Your task to perform on an android device: When is my next appointment? Image 0: 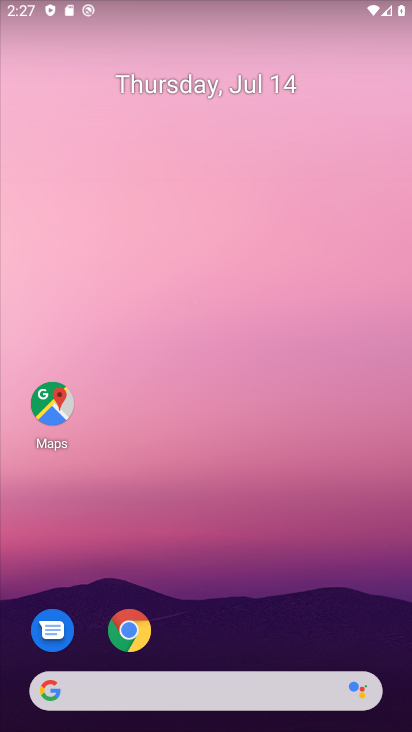
Step 0: drag from (199, 642) to (209, 4)
Your task to perform on an android device: When is my next appointment? Image 1: 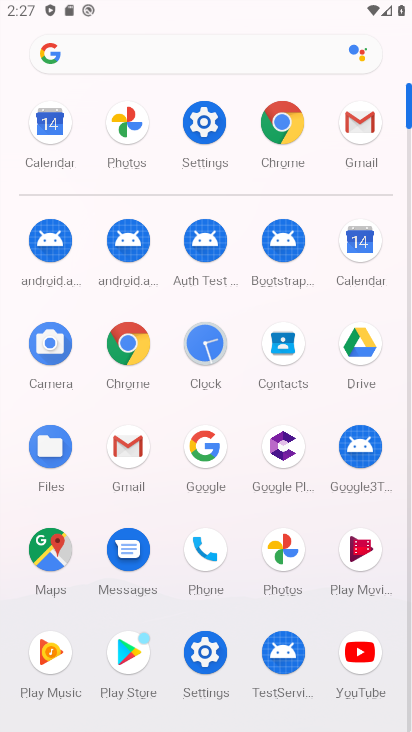
Step 1: click (358, 234)
Your task to perform on an android device: When is my next appointment? Image 2: 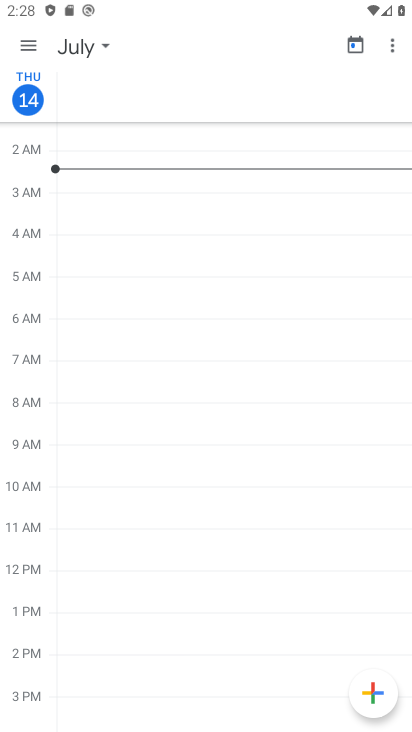
Step 2: click (43, 98)
Your task to perform on an android device: When is my next appointment? Image 3: 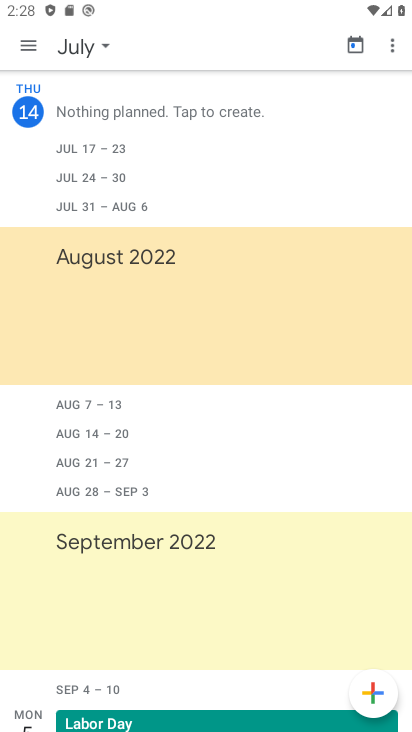
Step 3: click (22, 48)
Your task to perform on an android device: When is my next appointment? Image 4: 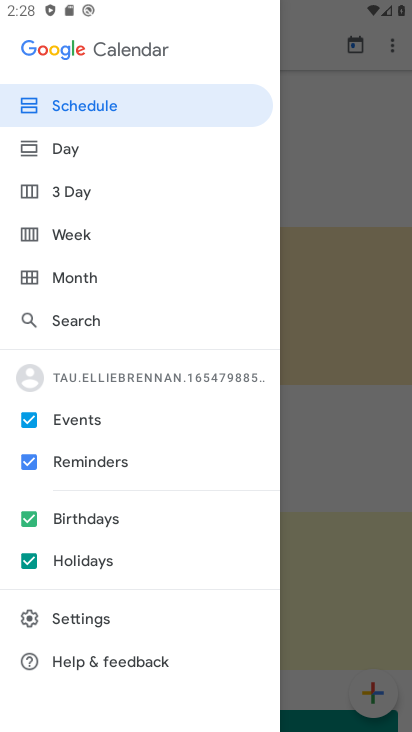
Step 4: click (70, 238)
Your task to perform on an android device: When is my next appointment? Image 5: 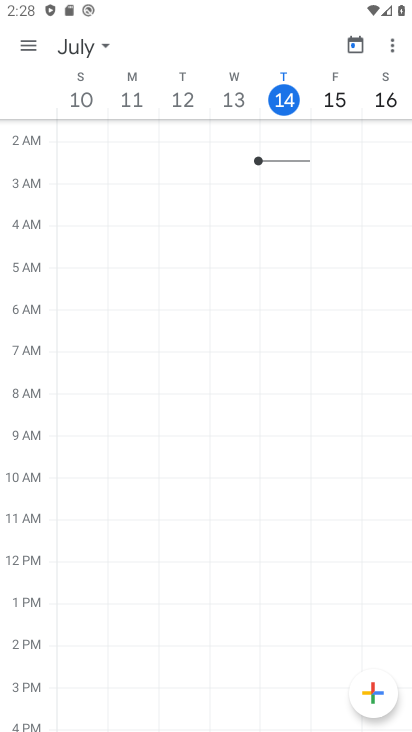
Step 5: task complete